Your task to perform on an android device: turn off picture-in-picture Image 0: 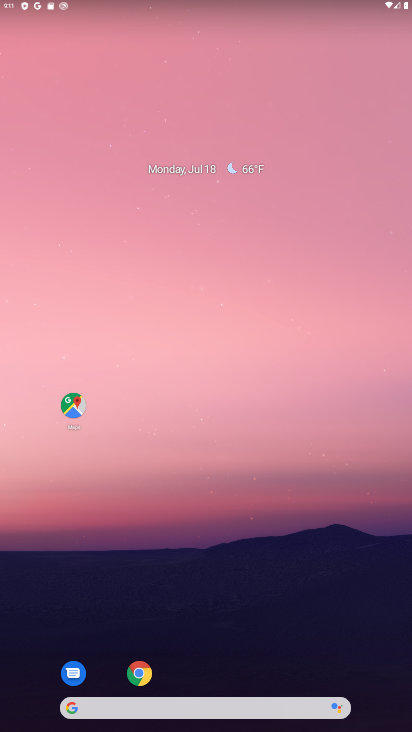
Step 0: click (140, 675)
Your task to perform on an android device: turn off picture-in-picture Image 1: 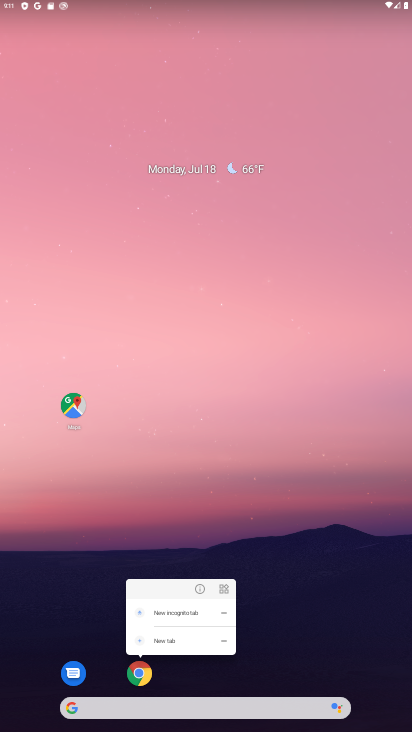
Step 1: click (198, 588)
Your task to perform on an android device: turn off picture-in-picture Image 2: 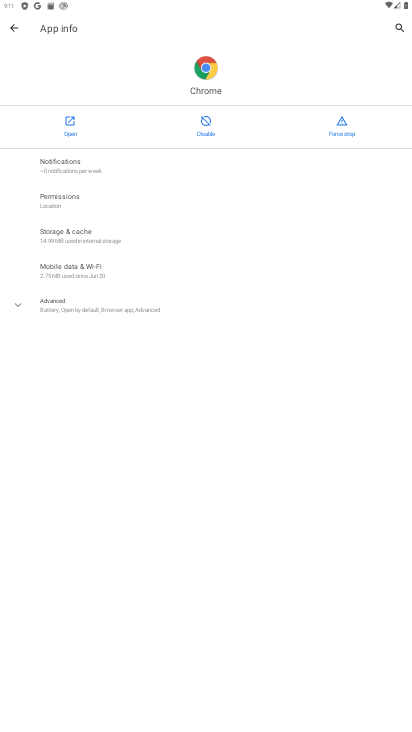
Step 2: click (73, 307)
Your task to perform on an android device: turn off picture-in-picture Image 3: 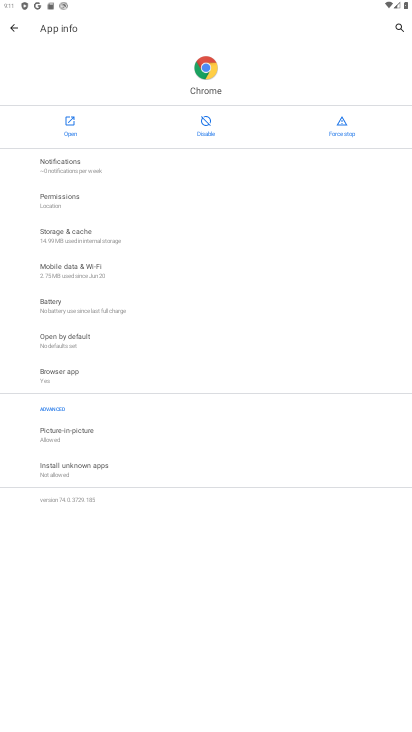
Step 3: click (85, 438)
Your task to perform on an android device: turn off picture-in-picture Image 4: 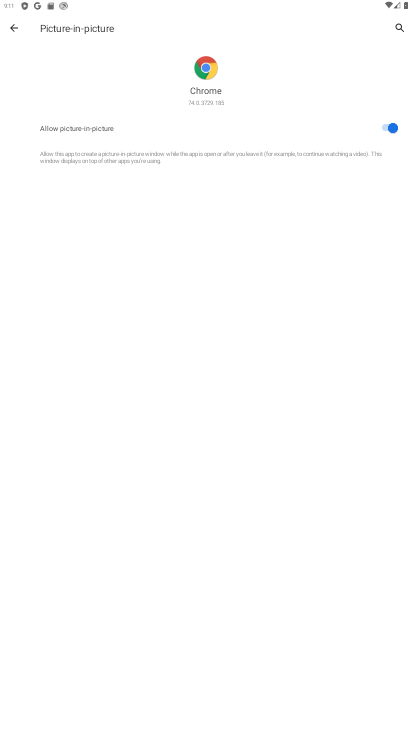
Step 4: click (390, 129)
Your task to perform on an android device: turn off picture-in-picture Image 5: 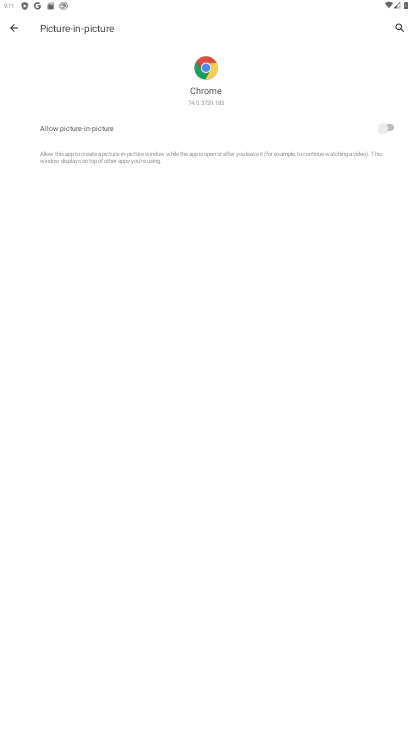
Step 5: task complete